Your task to perform on an android device: Turn on the flashlight Image 0: 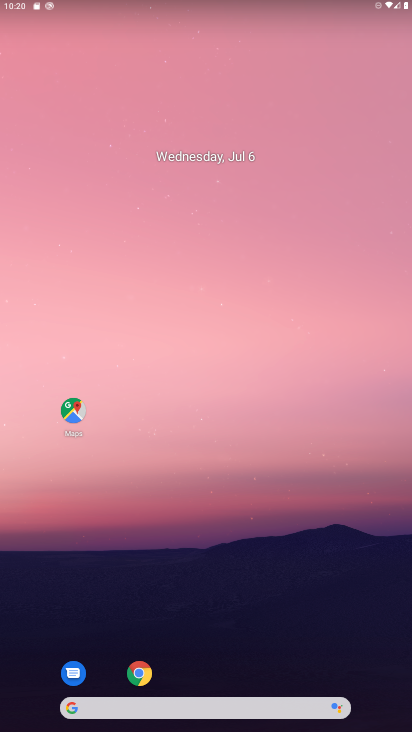
Step 0: drag from (193, 4) to (238, 506)
Your task to perform on an android device: Turn on the flashlight Image 1: 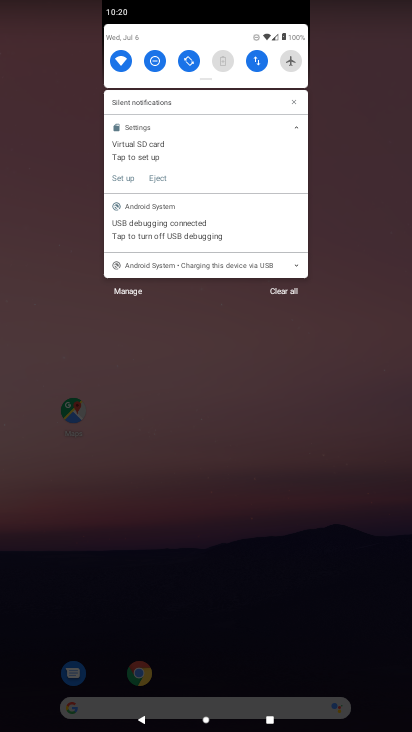
Step 1: drag from (211, 42) to (239, 632)
Your task to perform on an android device: Turn on the flashlight Image 2: 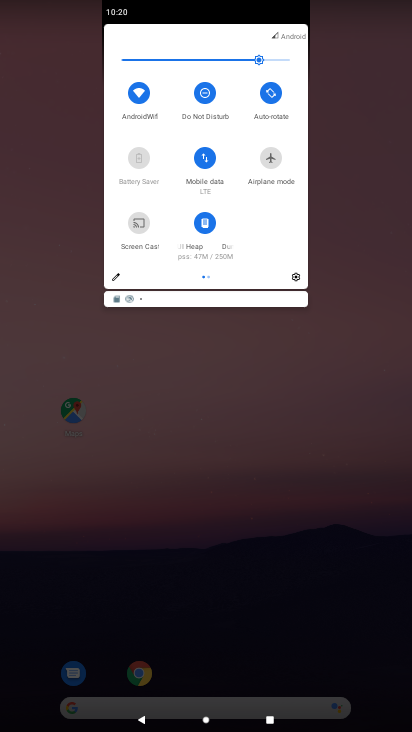
Step 2: click (296, 277)
Your task to perform on an android device: Turn on the flashlight Image 3: 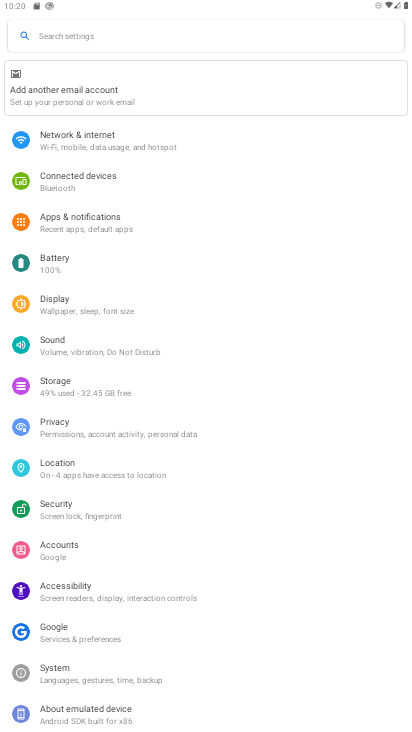
Step 3: task complete